Your task to perform on an android device: Show me the alarms in the clock app Image 0: 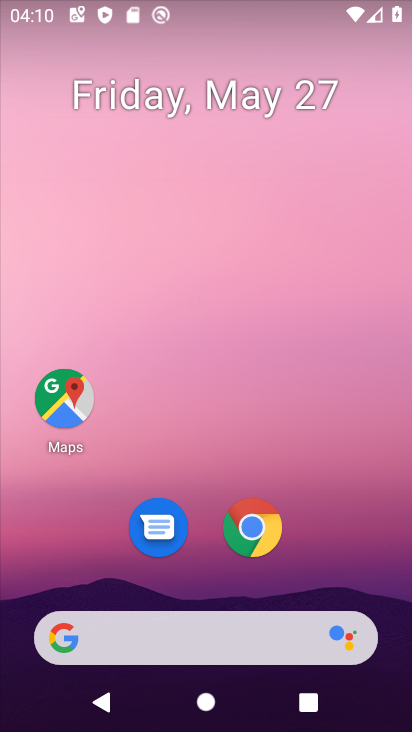
Step 0: drag from (318, 504) to (325, 172)
Your task to perform on an android device: Show me the alarms in the clock app Image 1: 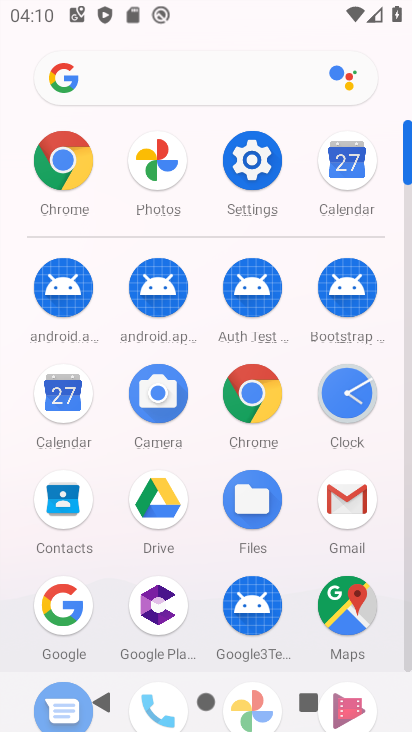
Step 1: click (356, 385)
Your task to perform on an android device: Show me the alarms in the clock app Image 2: 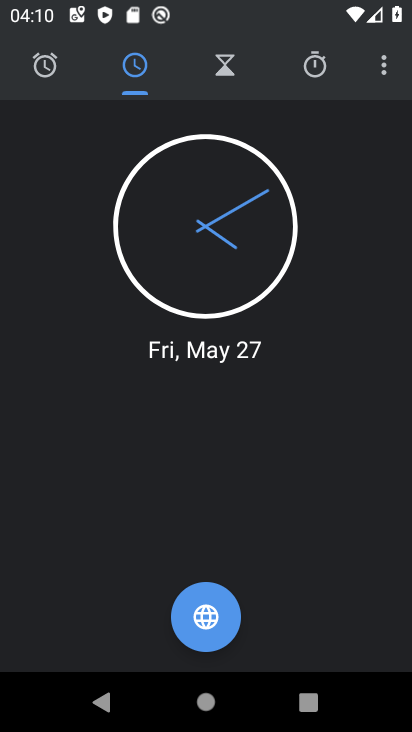
Step 2: click (53, 63)
Your task to perform on an android device: Show me the alarms in the clock app Image 3: 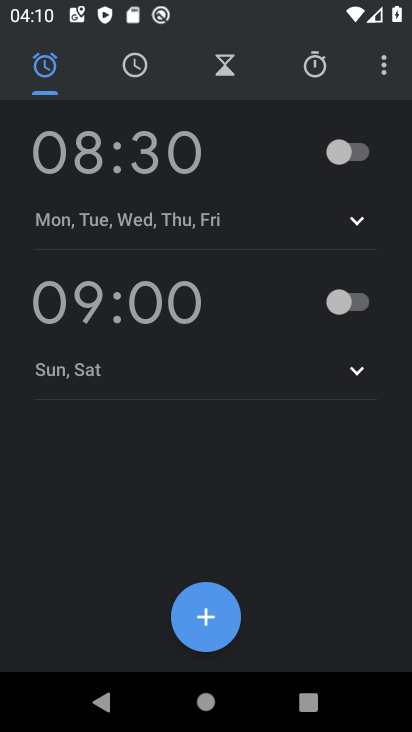
Step 3: task complete